Your task to perform on an android device: Go to Google maps Image 0: 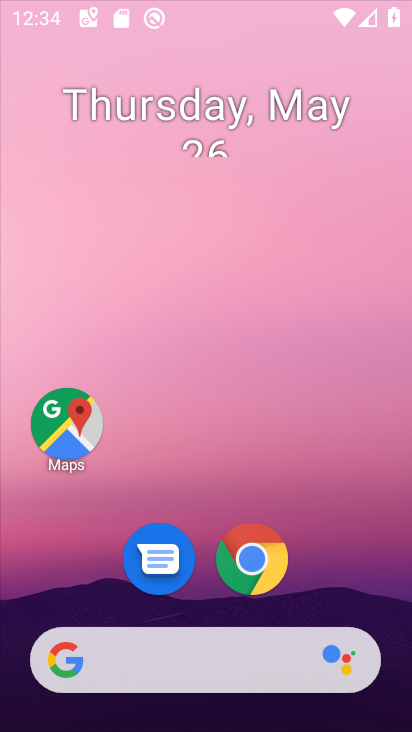
Step 0: press home button
Your task to perform on an android device: Go to Google maps Image 1: 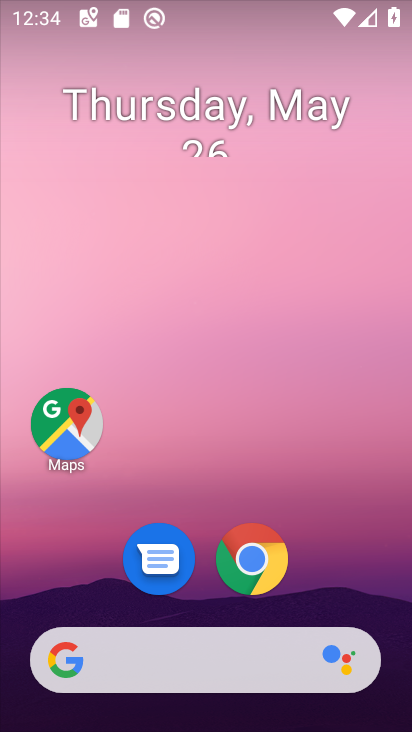
Step 1: click (62, 425)
Your task to perform on an android device: Go to Google maps Image 2: 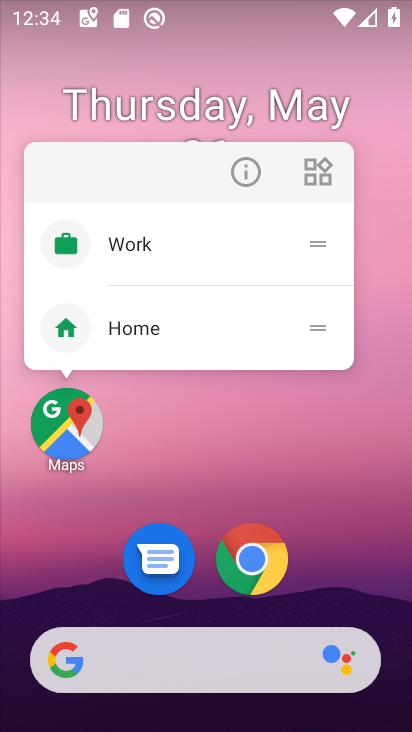
Step 2: click (63, 431)
Your task to perform on an android device: Go to Google maps Image 3: 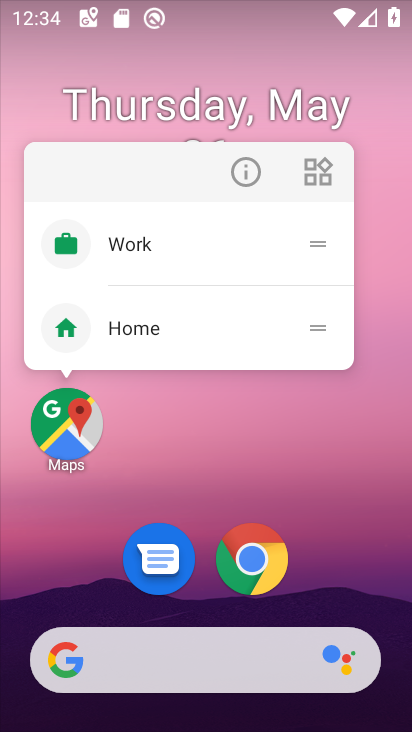
Step 3: click (63, 431)
Your task to perform on an android device: Go to Google maps Image 4: 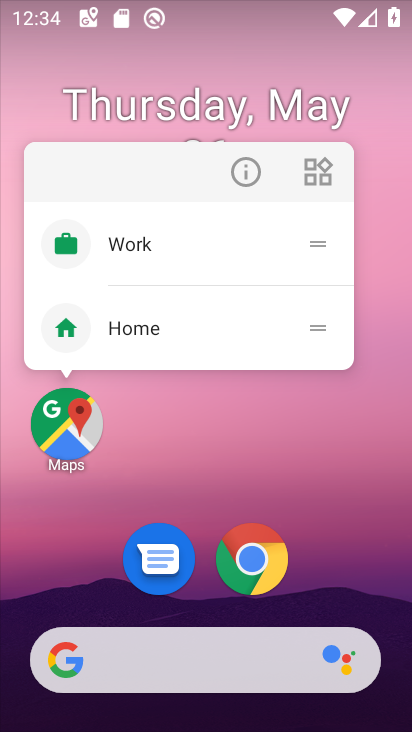
Step 4: click (68, 449)
Your task to perform on an android device: Go to Google maps Image 5: 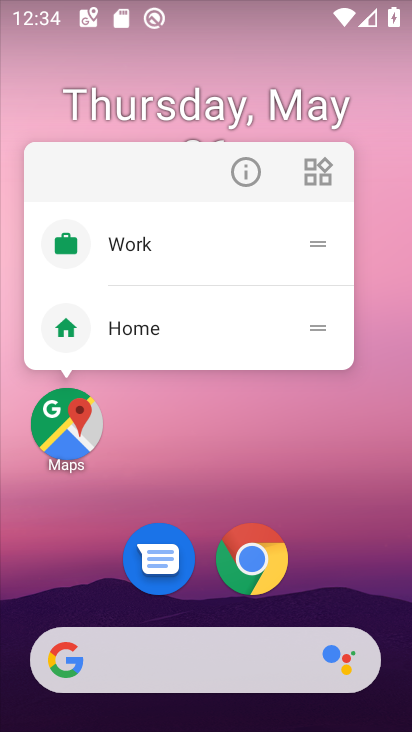
Step 5: click (244, 465)
Your task to perform on an android device: Go to Google maps Image 6: 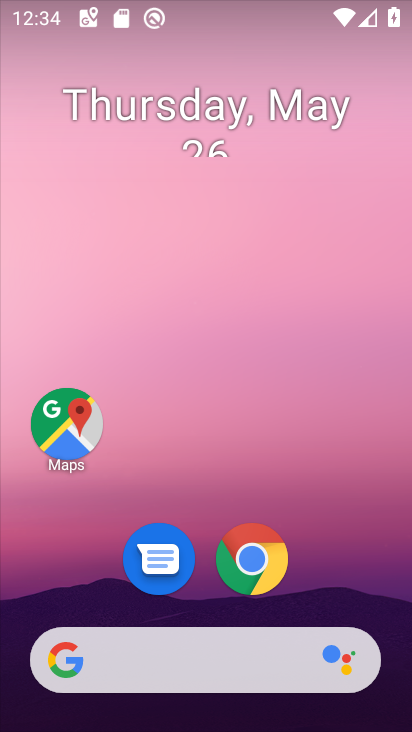
Step 6: click (68, 434)
Your task to perform on an android device: Go to Google maps Image 7: 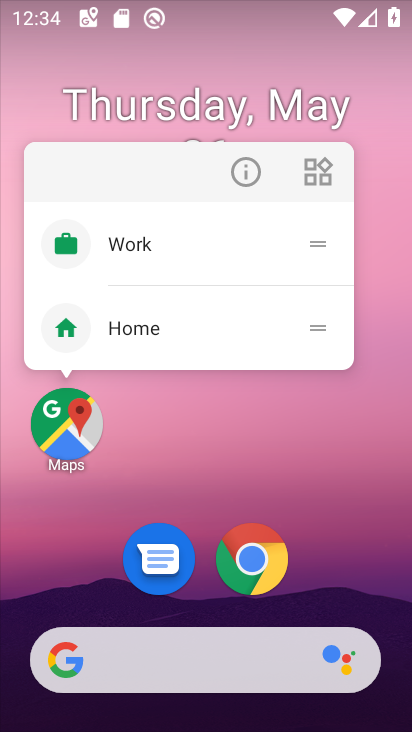
Step 7: task complete